Your task to perform on an android device: turn off airplane mode Image 0: 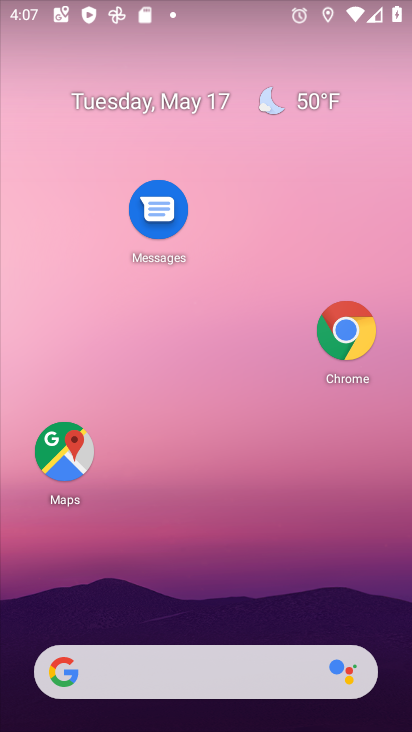
Step 0: drag from (259, 613) to (214, 136)
Your task to perform on an android device: turn off airplane mode Image 1: 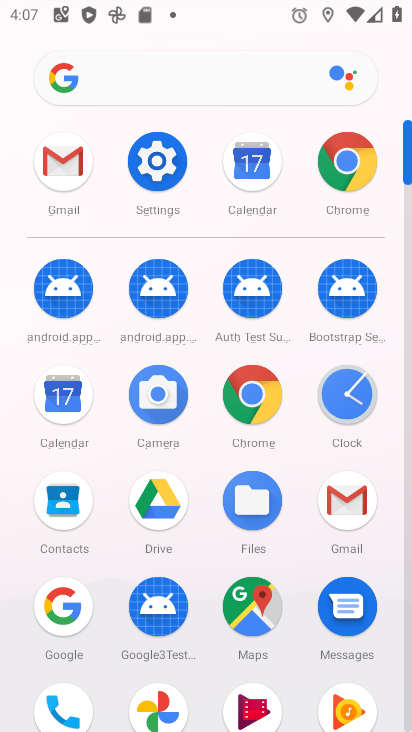
Step 1: click (169, 156)
Your task to perform on an android device: turn off airplane mode Image 2: 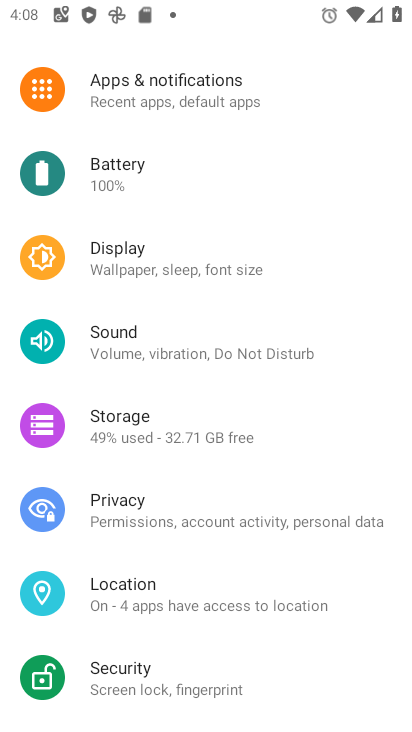
Step 2: drag from (141, 103) to (191, 348)
Your task to perform on an android device: turn off airplane mode Image 3: 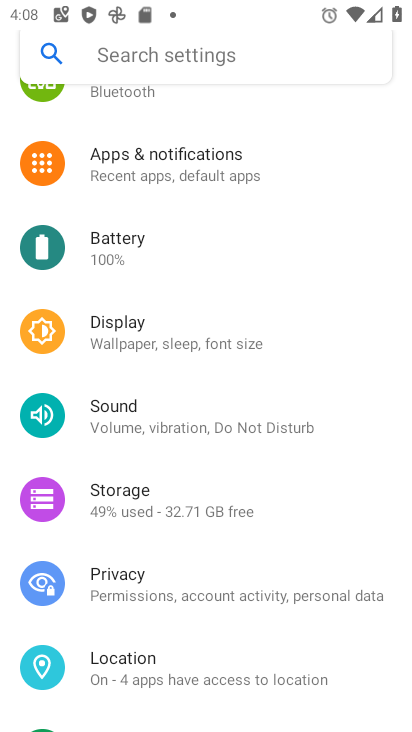
Step 3: drag from (163, 158) to (147, 556)
Your task to perform on an android device: turn off airplane mode Image 4: 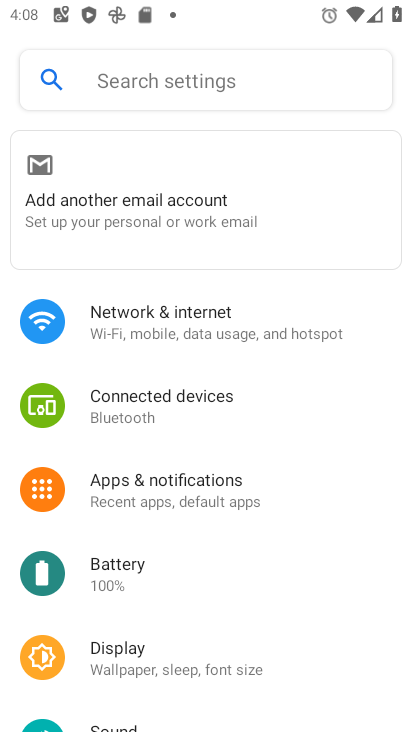
Step 4: click (161, 333)
Your task to perform on an android device: turn off airplane mode Image 5: 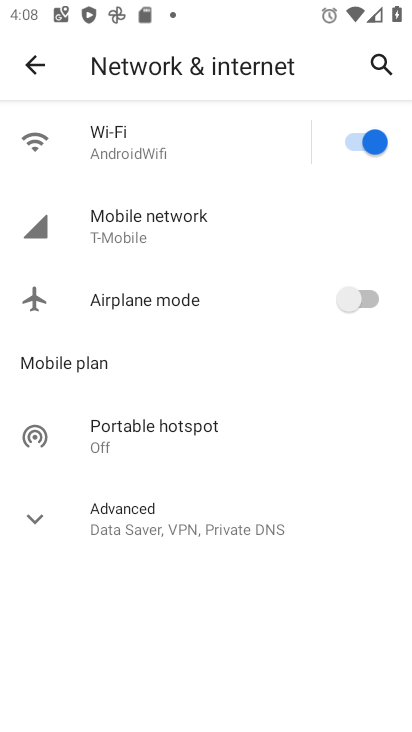
Step 5: click (358, 294)
Your task to perform on an android device: turn off airplane mode Image 6: 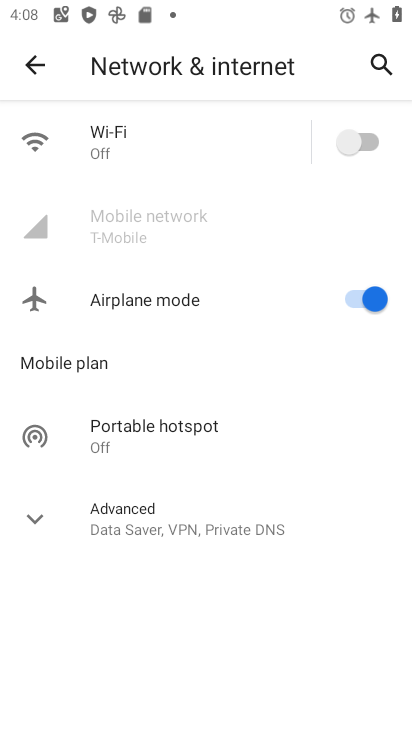
Step 6: click (347, 291)
Your task to perform on an android device: turn off airplane mode Image 7: 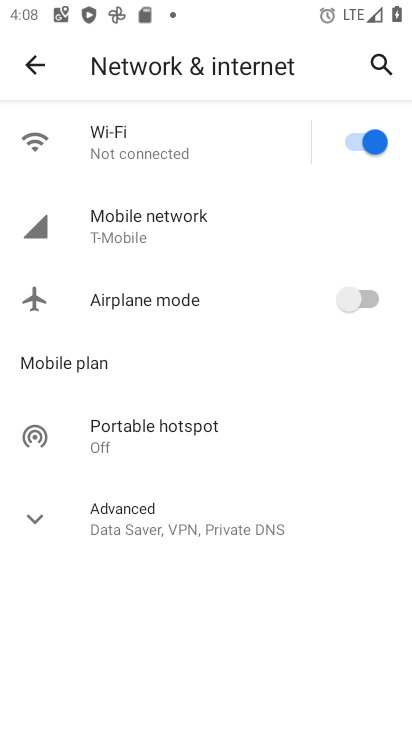
Step 7: task complete